Your task to perform on an android device: turn pop-ups on in chrome Image 0: 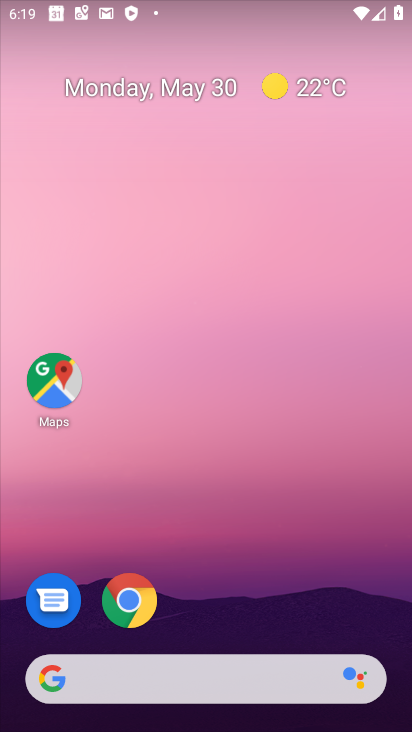
Step 0: press home button
Your task to perform on an android device: turn pop-ups on in chrome Image 1: 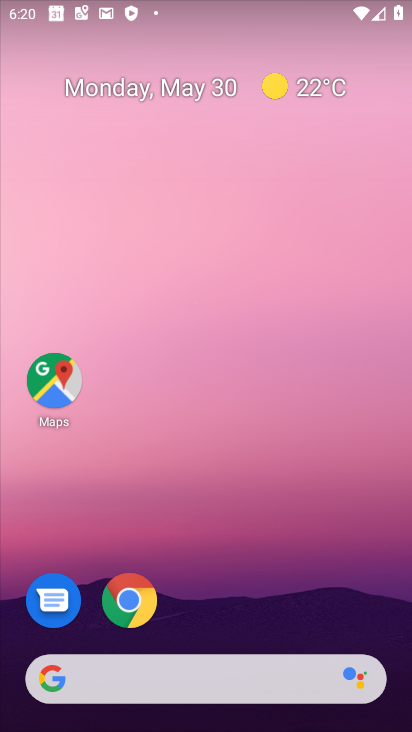
Step 1: click (123, 608)
Your task to perform on an android device: turn pop-ups on in chrome Image 2: 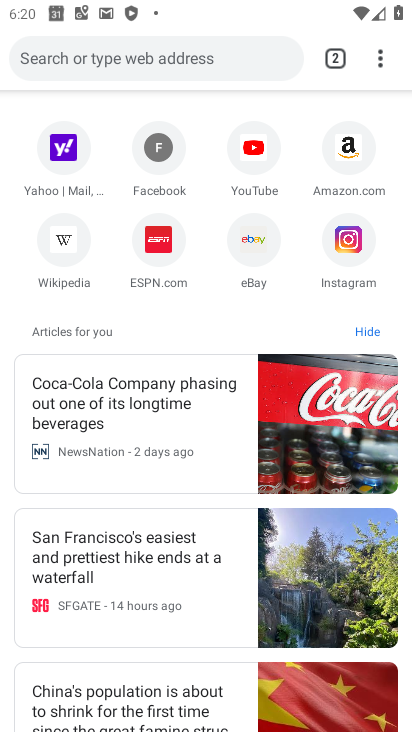
Step 2: drag from (370, 44) to (174, 493)
Your task to perform on an android device: turn pop-ups on in chrome Image 3: 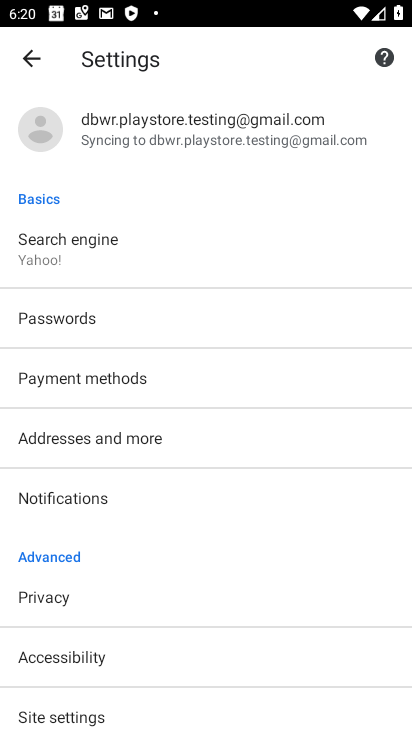
Step 3: click (79, 721)
Your task to perform on an android device: turn pop-ups on in chrome Image 4: 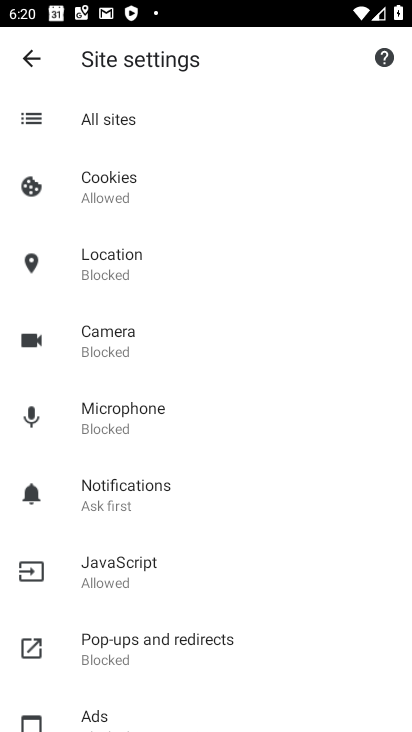
Step 4: click (131, 645)
Your task to perform on an android device: turn pop-ups on in chrome Image 5: 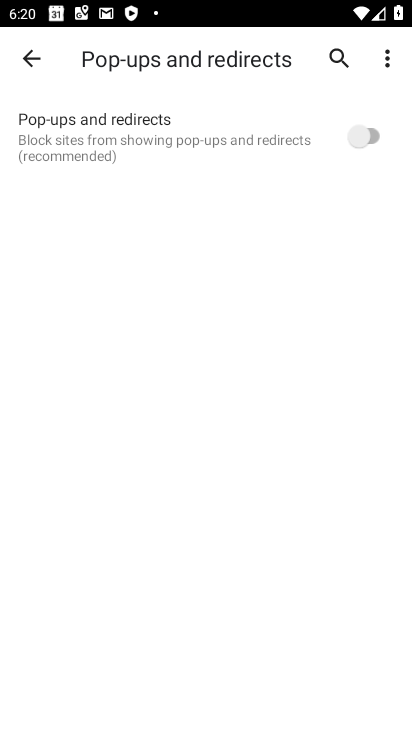
Step 5: click (366, 138)
Your task to perform on an android device: turn pop-ups on in chrome Image 6: 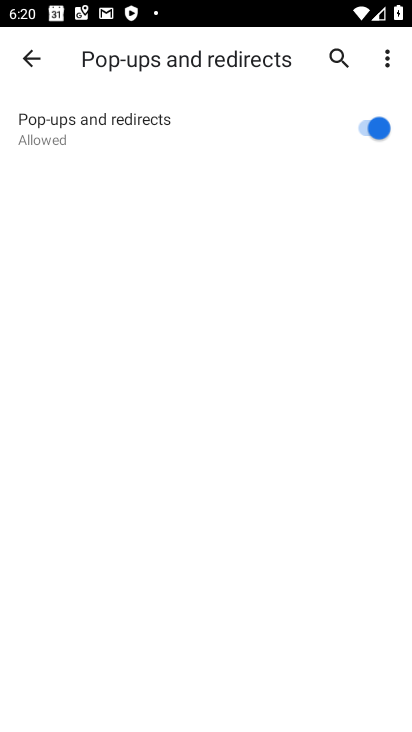
Step 6: task complete